Your task to perform on an android device: delete a single message in the gmail app Image 0: 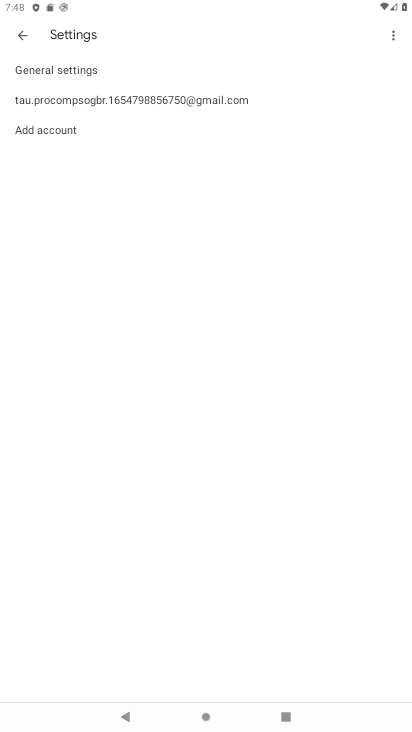
Step 0: click (22, 32)
Your task to perform on an android device: delete a single message in the gmail app Image 1: 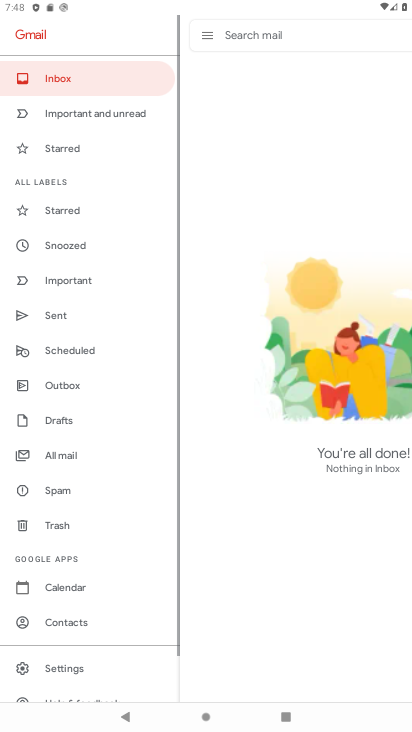
Step 1: click (76, 82)
Your task to perform on an android device: delete a single message in the gmail app Image 2: 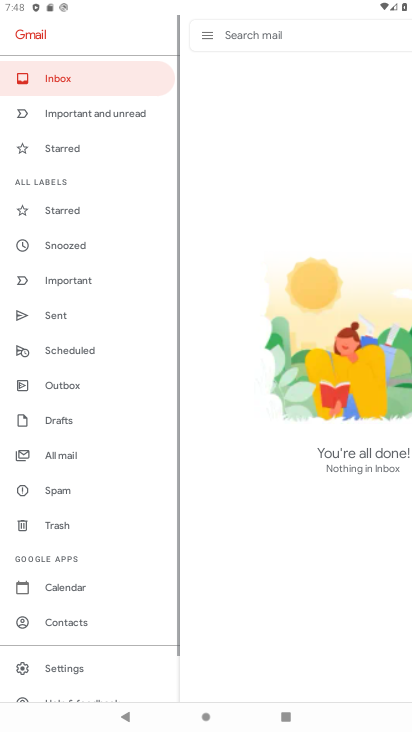
Step 2: task complete